Your task to perform on an android device: turn off improve location accuracy Image 0: 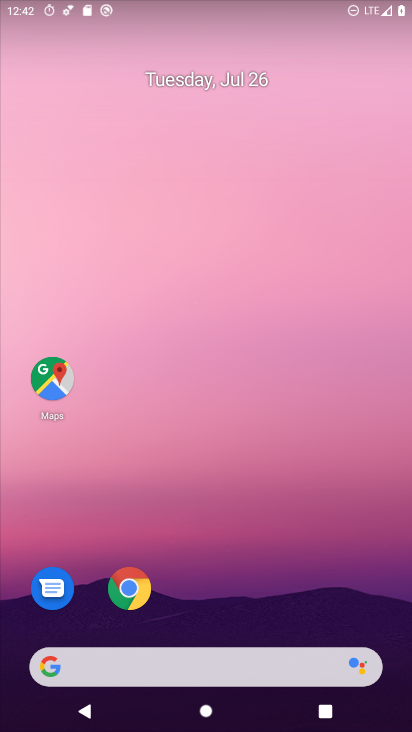
Step 0: drag from (279, 520) to (297, 96)
Your task to perform on an android device: turn off improve location accuracy Image 1: 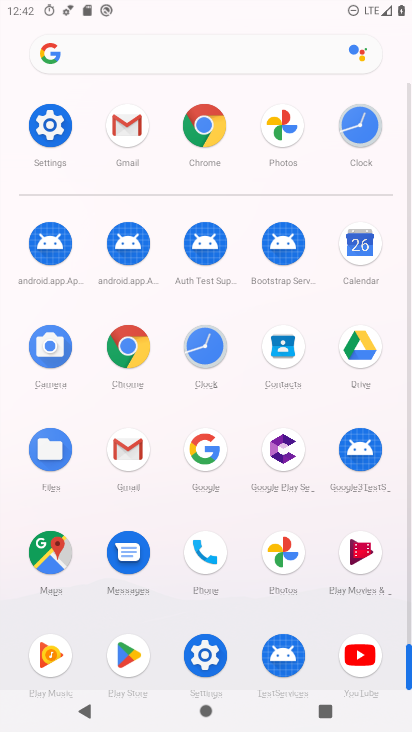
Step 1: click (220, 665)
Your task to perform on an android device: turn off improve location accuracy Image 2: 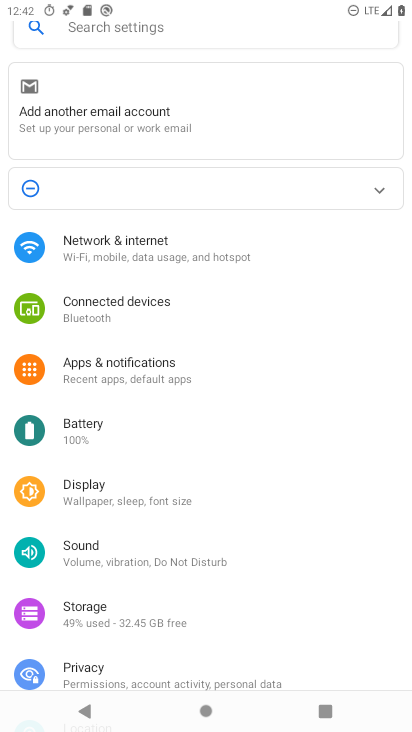
Step 2: drag from (174, 589) to (177, 358)
Your task to perform on an android device: turn off improve location accuracy Image 3: 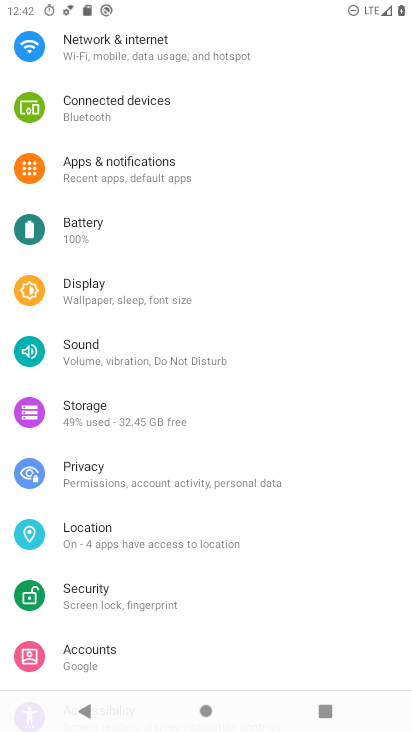
Step 3: click (153, 544)
Your task to perform on an android device: turn off improve location accuracy Image 4: 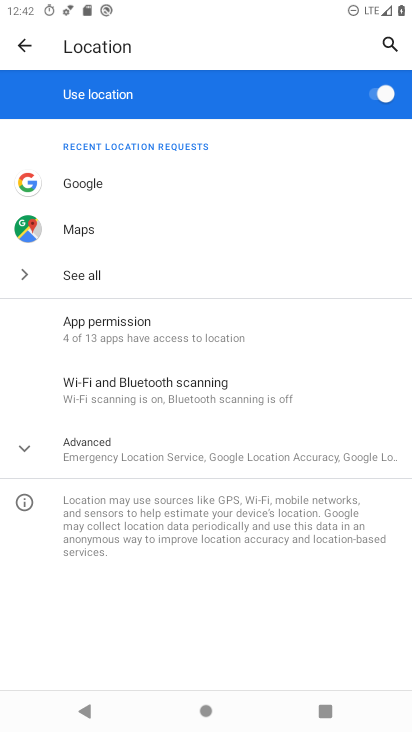
Step 4: click (187, 453)
Your task to perform on an android device: turn off improve location accuracy Image 5: 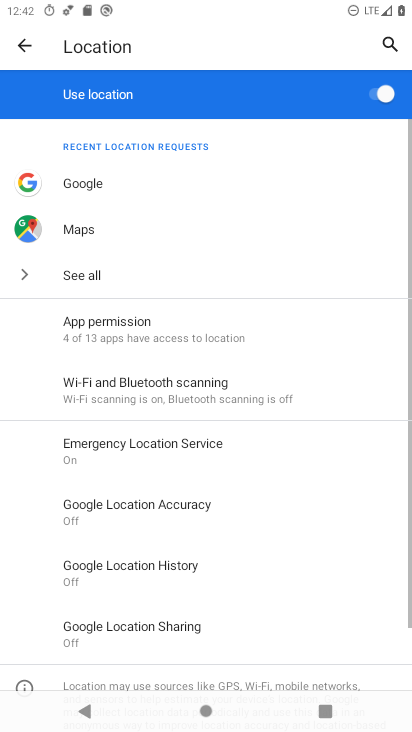
Step 5: click (207, 506)
Your task to perform on an android device: turn off improve location accuracy Image 6: 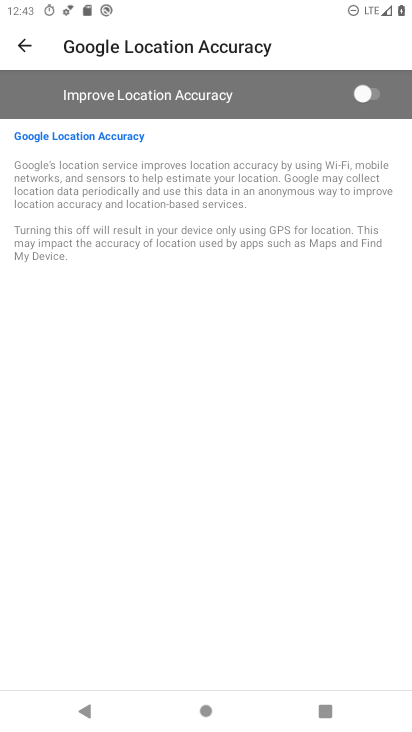
Step 6: task complete